Your task to perform on an android device: Open Yahoo.com Image 0: 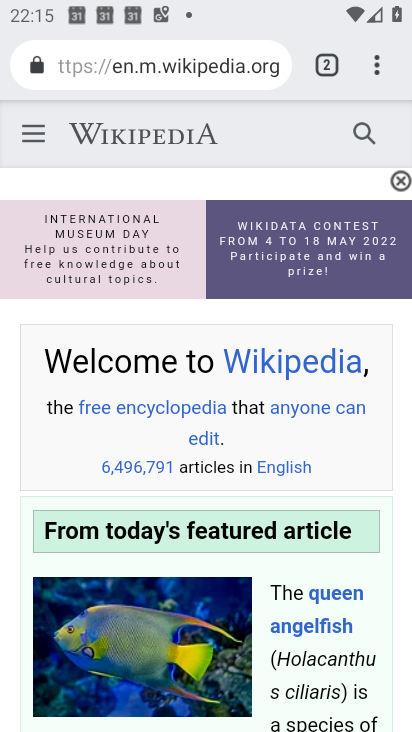
Step 0: press home button
Your task to perform on an android device: Open Yahoo.com Image 1: 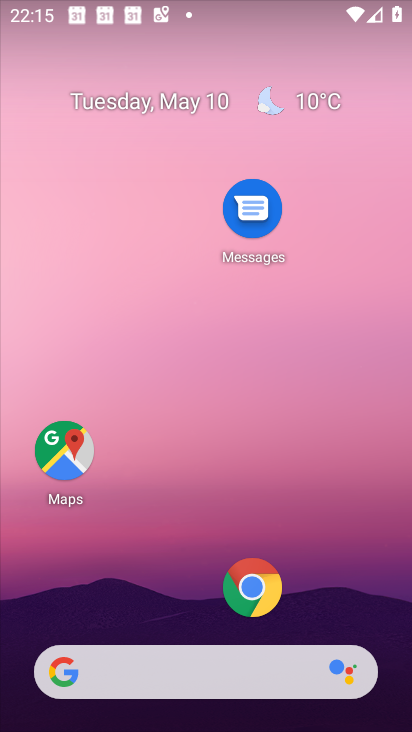
Step 1: click (268, 597)
Your task to perform on an android device: Open Yahoo.com Image 2: 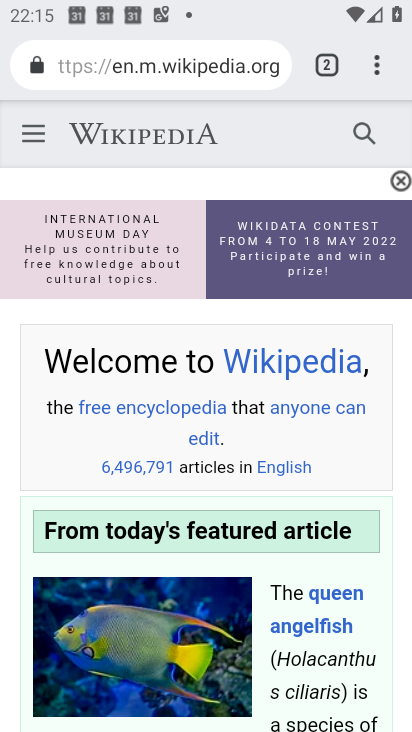
Step 2: click (199, 52)
Your task to perform on an android device: Open Yahoo.com Image 3: 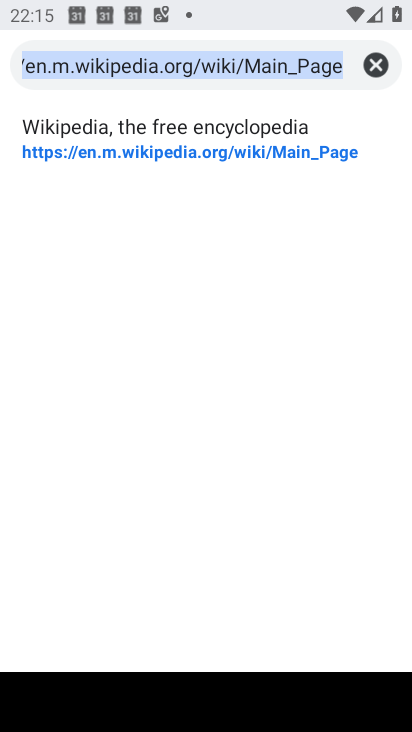
Step 3: type "yahoo.com"
Your task to perform on an android device: Open Yahoo.com Image 4: 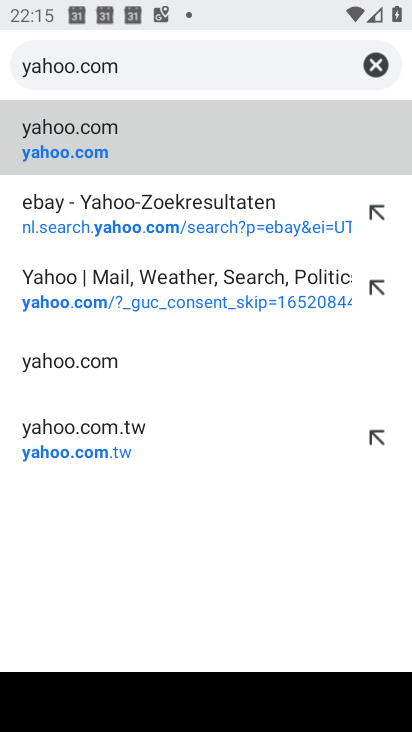
Step 4: click (93, 140)
Your task to perform on an android device: Open Yahoo.com Image 5: 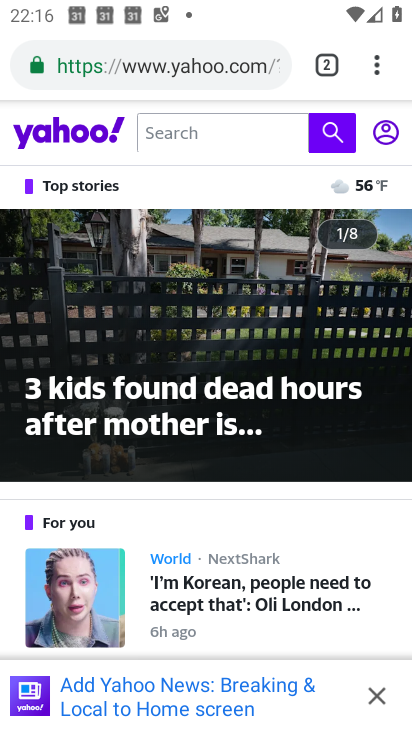
Step 5: task complete